Your task to perform on an android device: Go to Amazon Image 0: 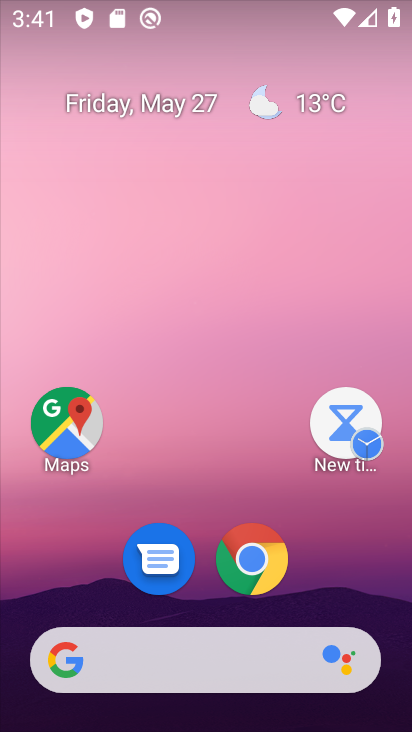
Step 0: drag from (257, 703) to (115, 105)
Your task to perform on an android device: Go to Amazon Image 1: 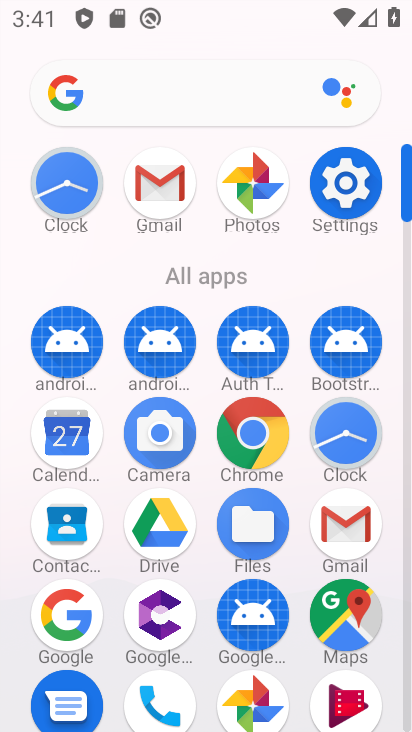
Step 1: click (262, 431)
Your task to perform on an android device: Go to Amazon Image 2: 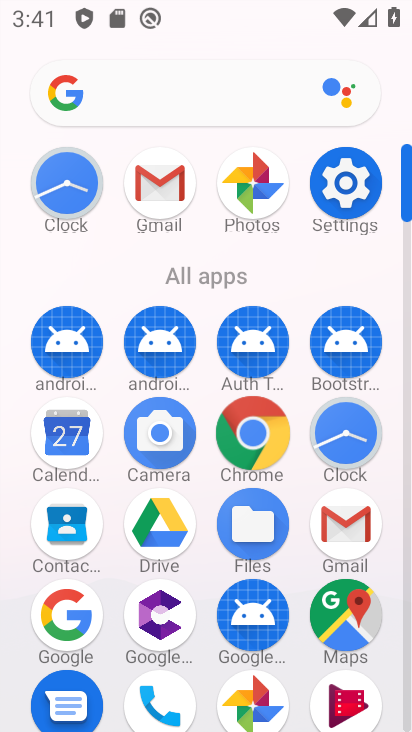
Step 2: click (263, 430)
Your task to perform on an android device: Go to Amazon Image 3: 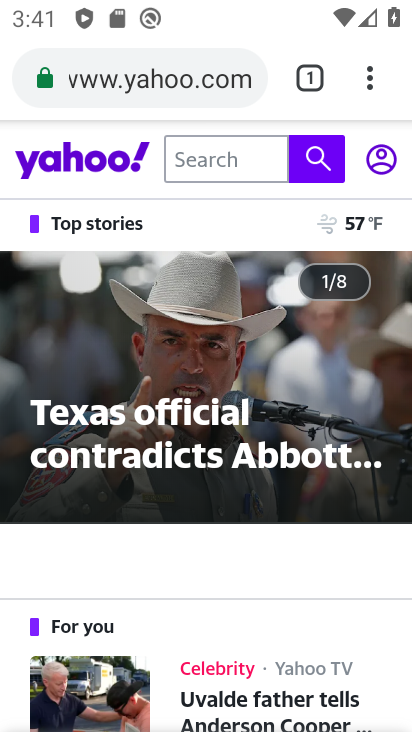
Step 3: click (366, 86)
Your task to perform on an android device: Go to Amazon Image 4: 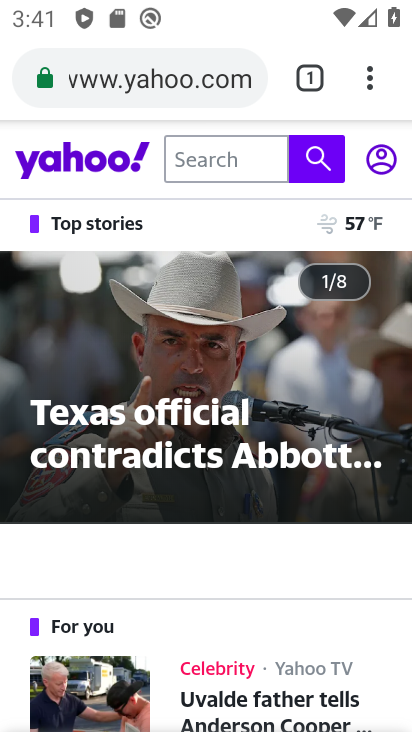
Step 4: click (367, 86)
Your task to perform on an android device: Go to Amazon Image 5: 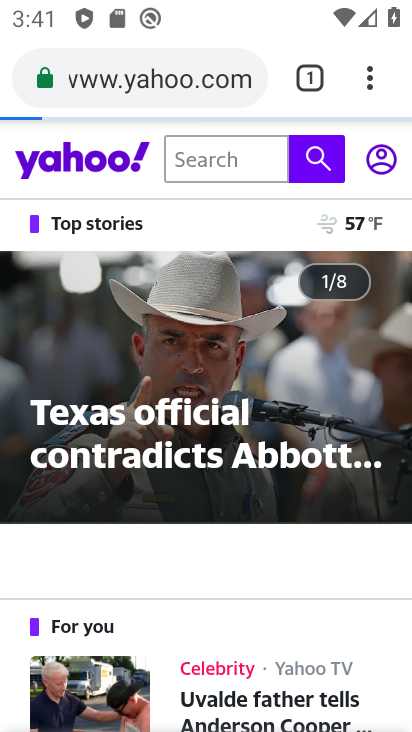
Step 5: click (367, 58)
Your task to perform on an android device: Go to Amazon Image 6: 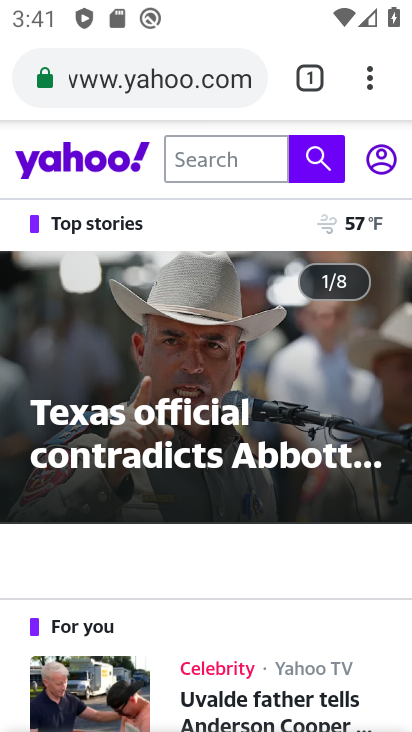
Step 6: click (375, 86)
Your task to perform on an android device: Go to Amazon Image 7: 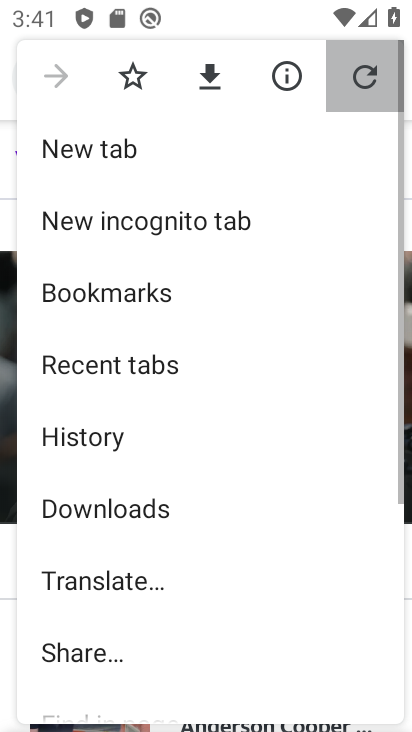
Step 7: click (374, 85)
Your task to perform on an android device: Go to Amazon Image 8: 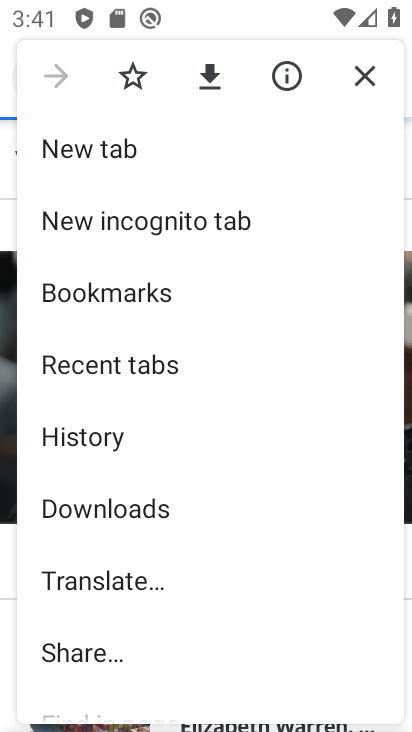
Step 8: drag from (146, 576) to (153, 190)
Your task to perform on an android device: Go to Amazon Image 9: 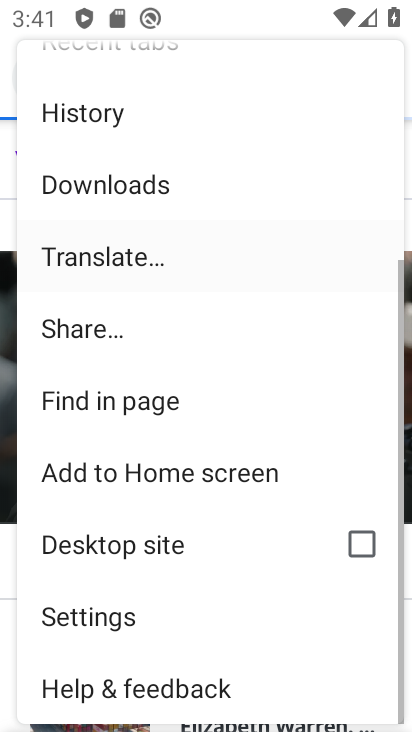
Step 9: drag from (114, 241) to (91, 99)
Your task to perform on an android device: Go to Amazon Image 10: 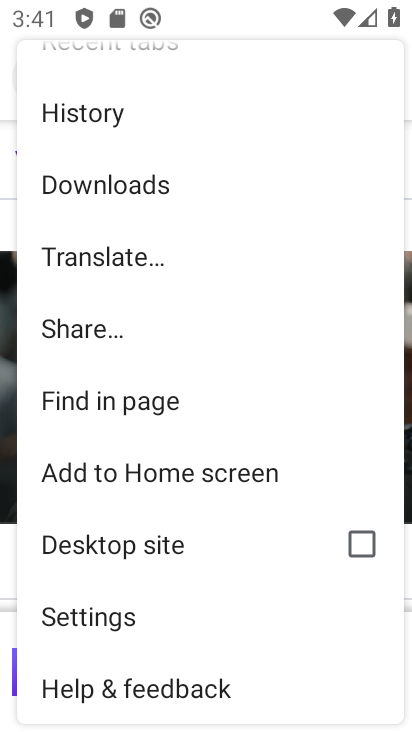
Step 10: drag from (136, 587) to (93, 278)
Your task to perform on an android device: Go to Amazon Image 11: 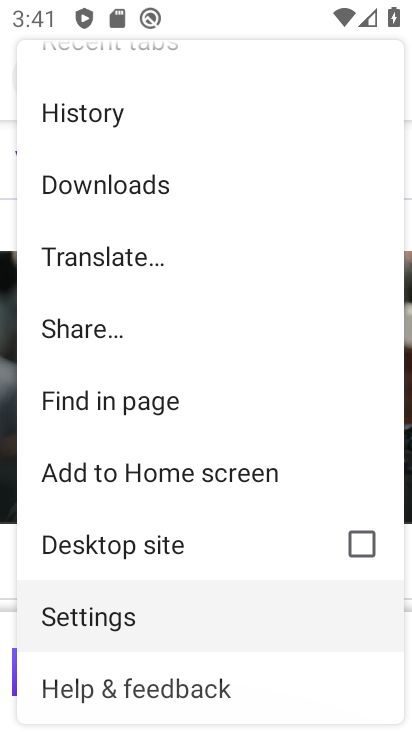
Step 11: drag from (131, 474) to (89, 210)
Your task to perform on an android device: Go to Amazon Image 12: 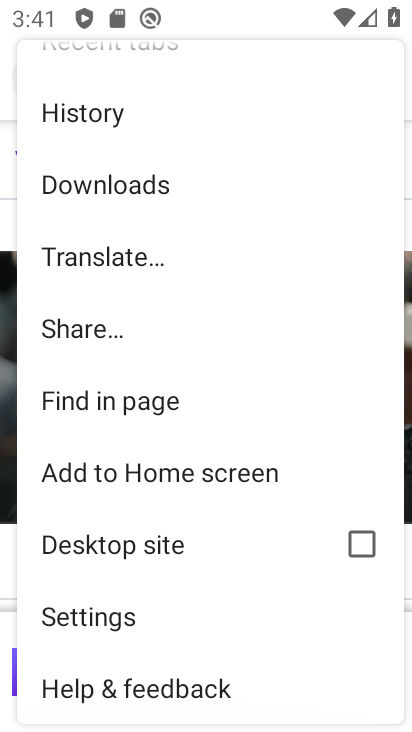
Step 12: drag from (88, 506) to (80, 280)
Your task to perform on an android device: Go to Amazon Image 13: 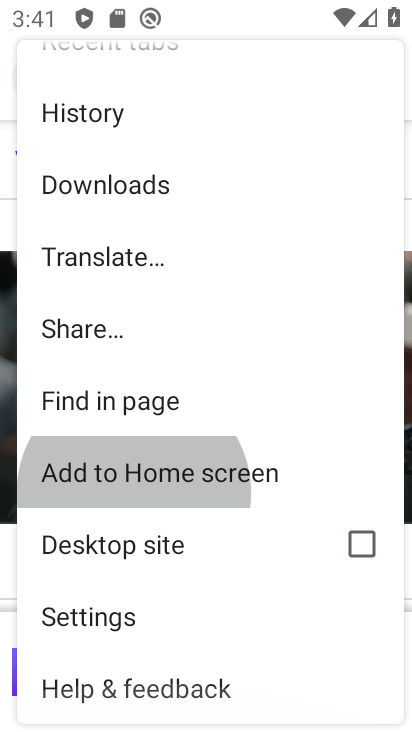
Step 13: drag from (80, 491) to (109, 241)
Your task to perform on an android device: Go to Amazon Image 14: 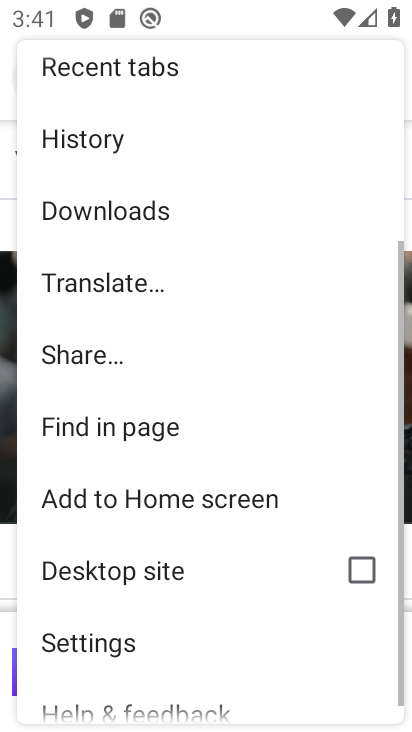
Step 14: drag from (124, 396) to (136, 184)
Your task to perform on an android device: Go to Amazon Image 15: 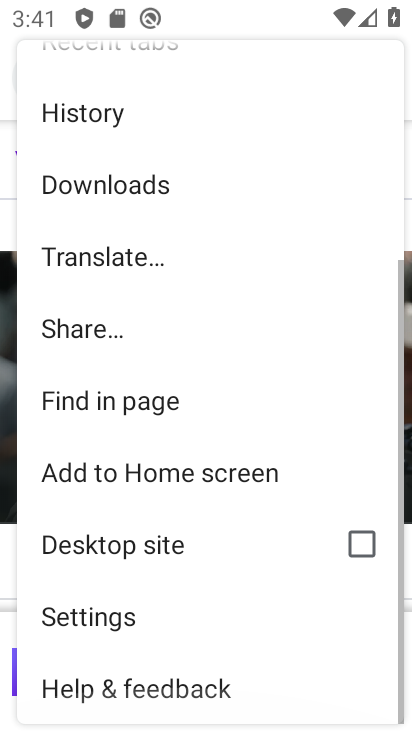
Step 15: drag from (142, 447) to (119, 57)
Your task to perform on an android device: Go to Amazon Image 16: 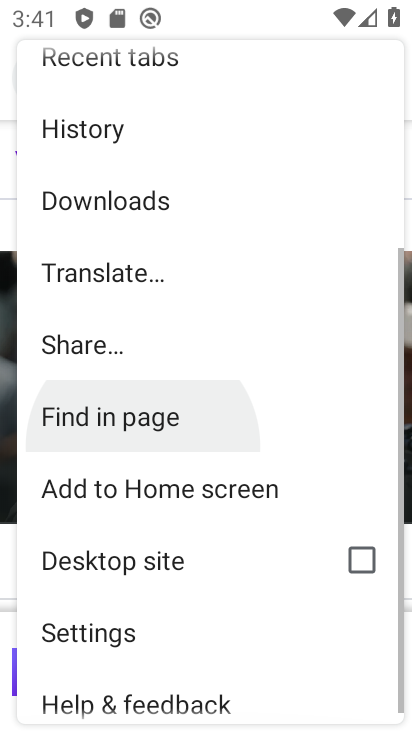
Step 16: drag from (111, 450) to (111, 108)
Your task to perform on an android device: Go to Amazon Image 17: 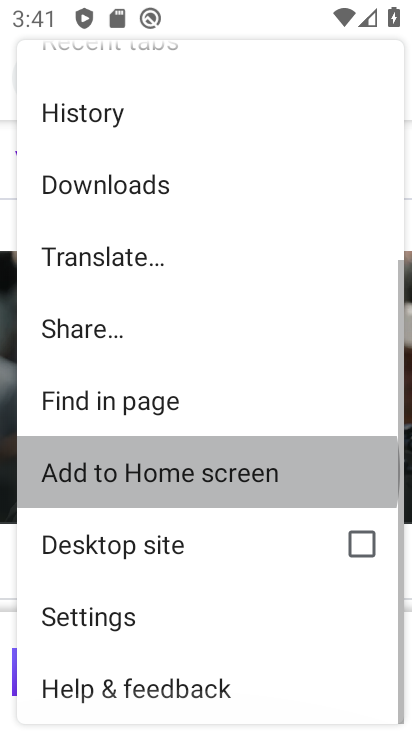
Step 17: drag from (130, 530) to (88, 160)
Your task to perform on an android device: Go to Amazon Image 18: 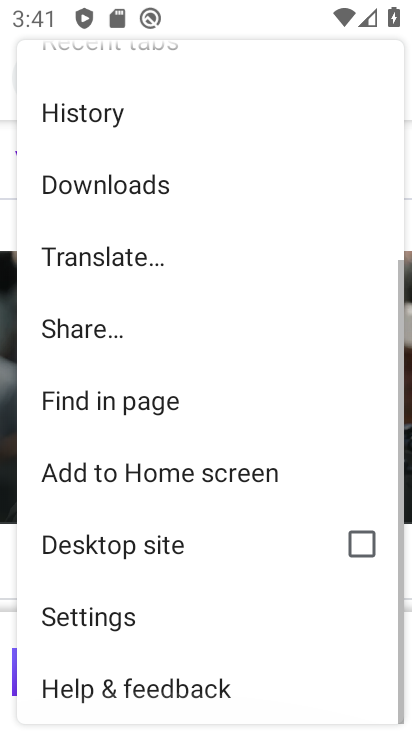
Step 18: drag from (147, 303) to (184, 19)
Your task to perform on an android device: Go to Amazon Image 19: 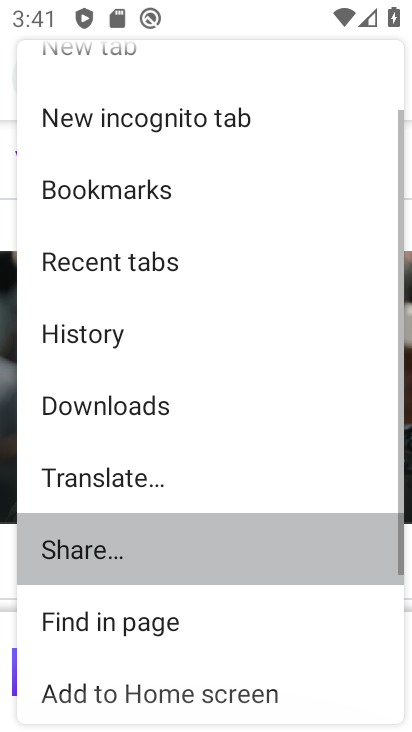
Step 19: drag from (165, 303) to (156, 73)
Your task to perform on an android device: Go to Amazon Image 20: 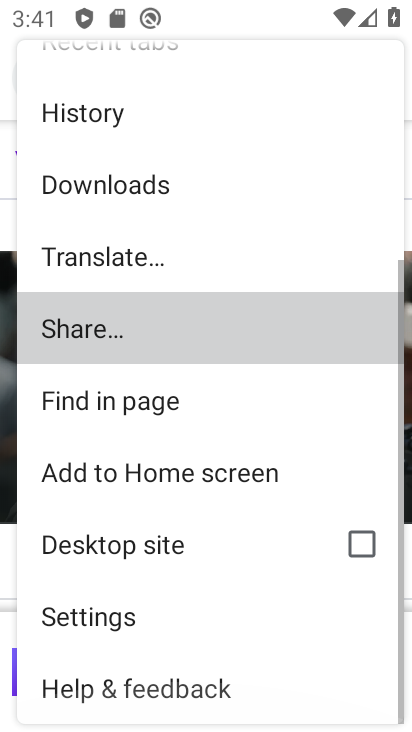
Step 20: drag from (184, 356) to (148, 97)
Your task to perform on an android device: Go to Amazon Image 21: 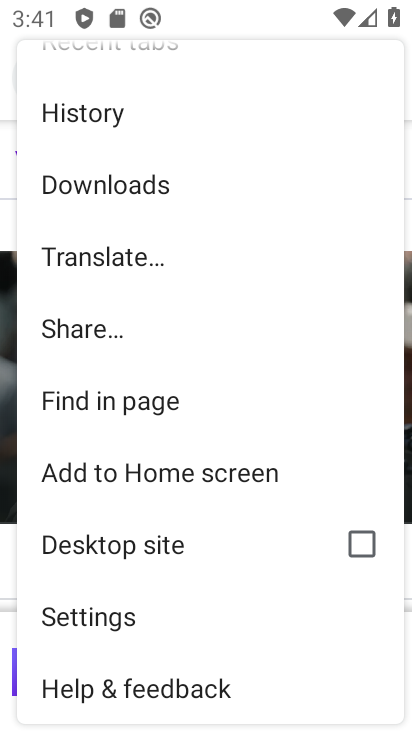
Step 21: click (71, 614)
Your task to perform on an android device: Go to Amazon Image 22: 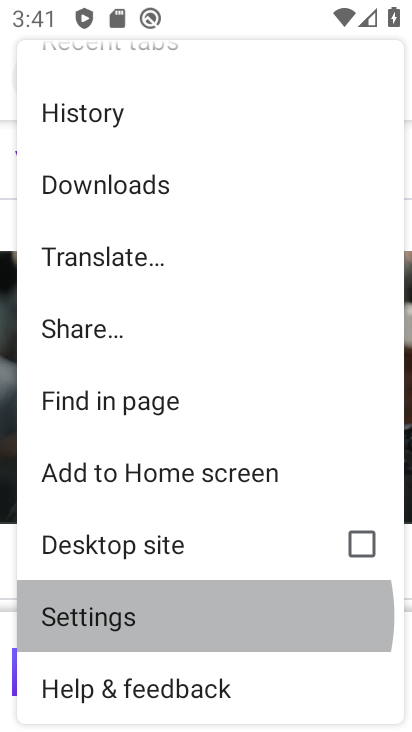
Step 22: click (71, 614)
Your task to perform on an android device: Go to Amazon Image 23: 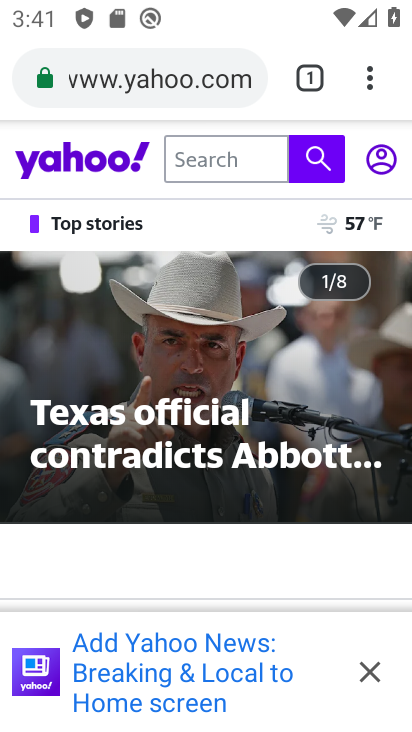
Step 23: click (71, 614)
Your task to perform on an android device: Go to Amazon Image 24: 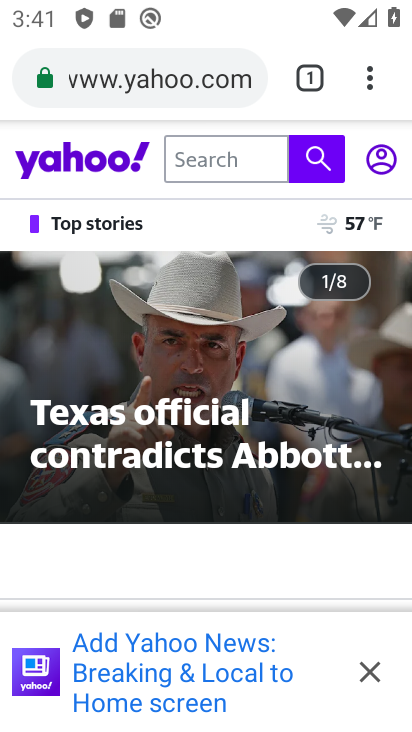
Step 24: click (71, 614)
Your task to perform on an android device: Go to Amazon Image 25: 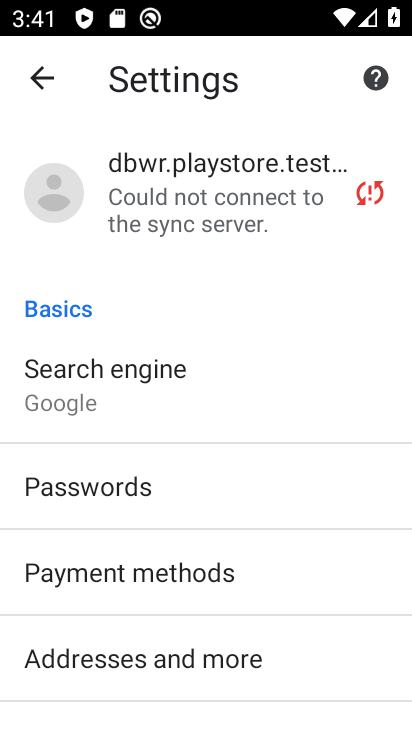
Step 25: click (40, 70)
Your task to perform on an android device: Go to Amazon Image 26: 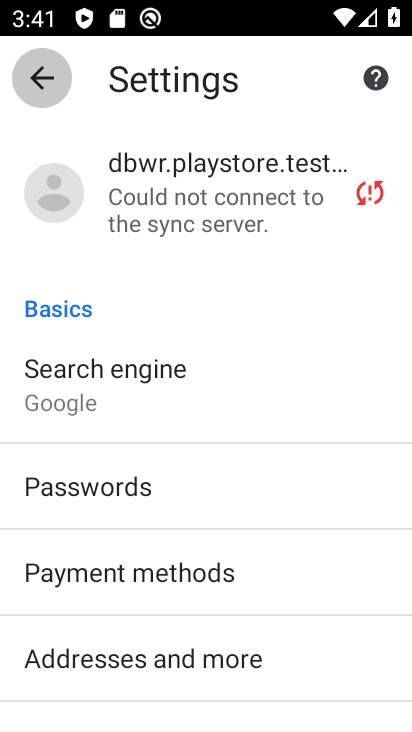
Step 26: click (39, 69)
Your task to perform on an android device: Go to Amazon Image 27: 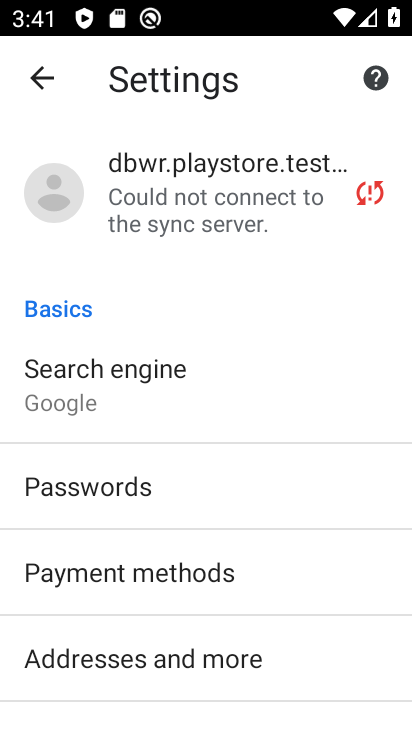
Step 27: click (39, 69)
Your task to perform on an android device: Go to Amazon Image 28: 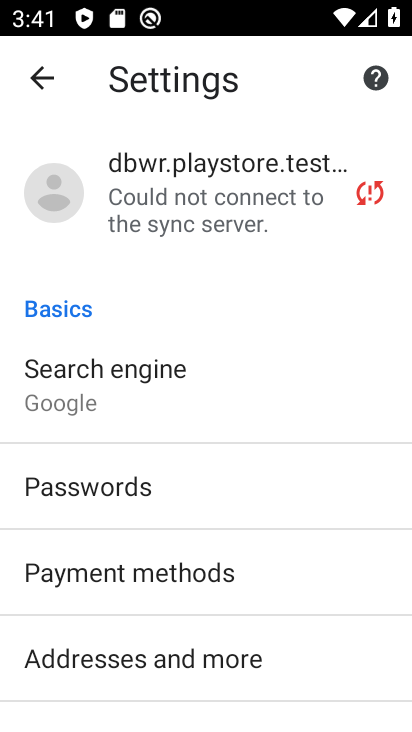
Step 28: click (39, 69)
Your task to perform on an android device: Go to Amazon Image 29: 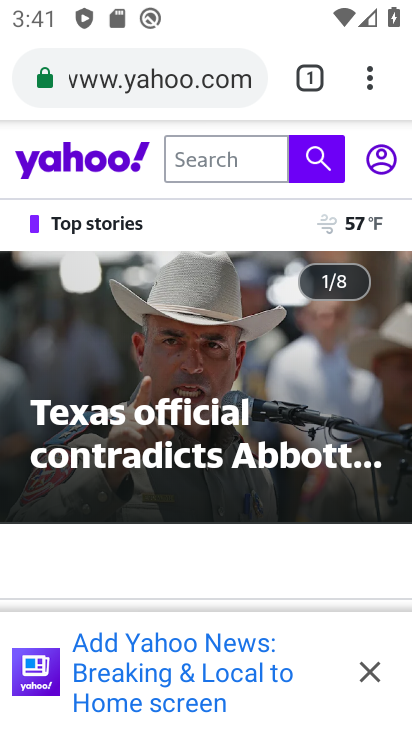
Step 29: click (363, 89)
Your task to perform on an android device: Go to Amazon Image 30: 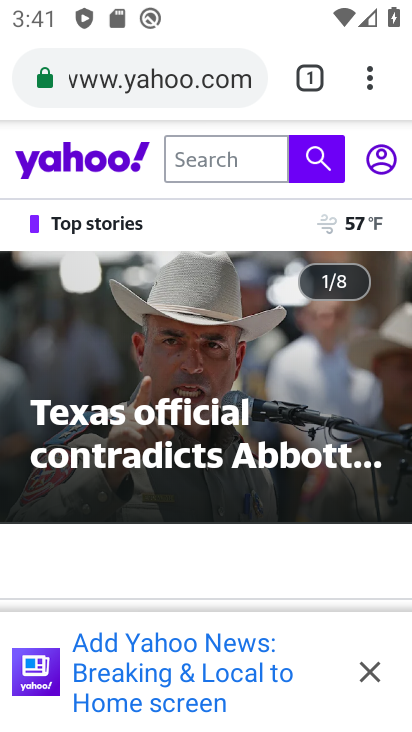
Step 30: click (373, 83)
Your task to perform on an android device: Go to Amazon Image 31: 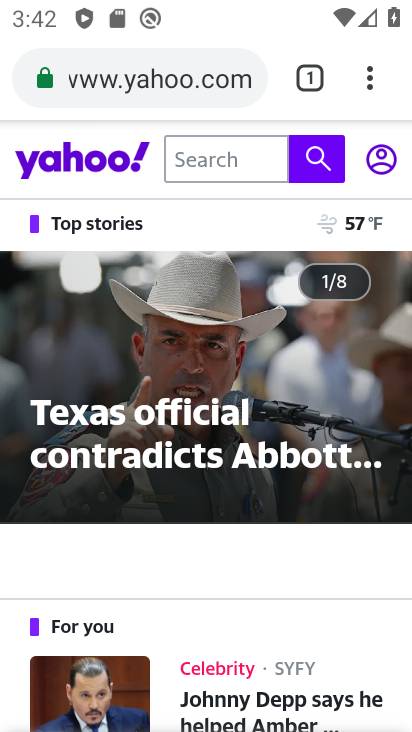
Step 31: click (124, 200)
Your task to perform on an android device: Go to Amazon Image 32: 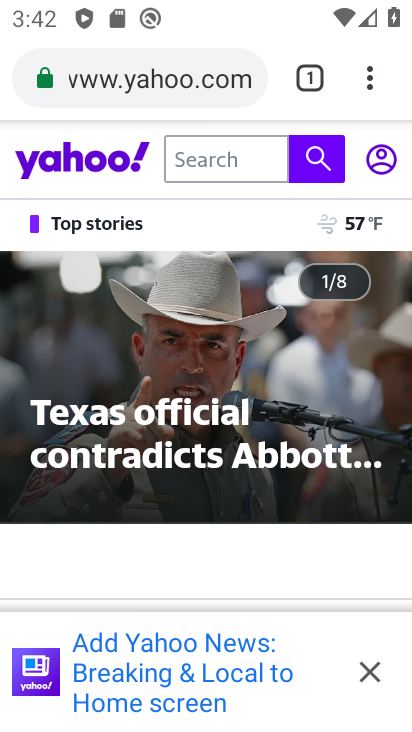
Step 32: drag from (67, 227) to (90, 158)
Your task to perform on an android device: Go to Amazon Image 33: 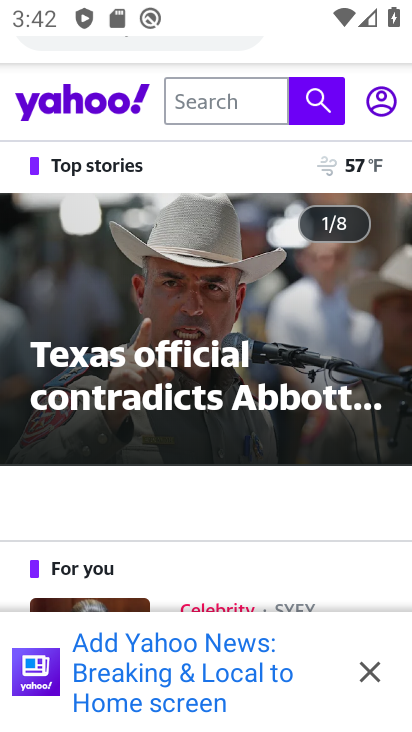
Step 33: drag from (147, 479) to (118, 239)
Your task to perform on an android device: Go to Amazon Image 34: 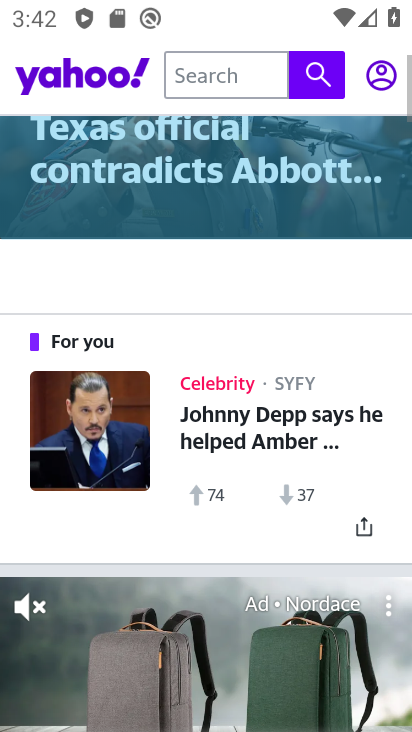
Step 34: drag from (145, 531) to (97, 198)
Your task to perform on an android device: Go to Amazon Image 35: 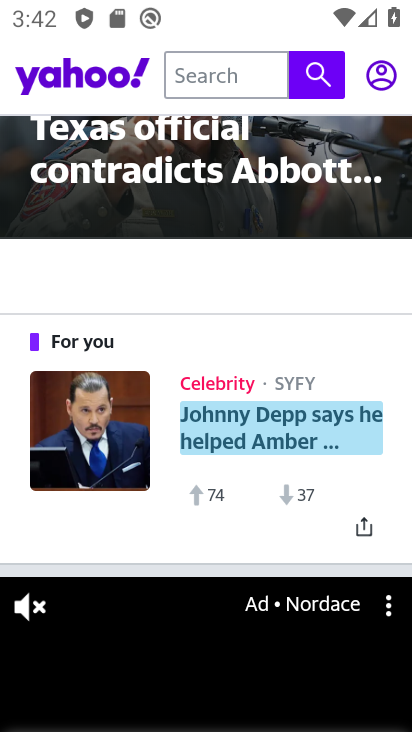
Step 35: drag from (125, 478) to (82, 207)
Your task to perform on an android device: Go to Amazon Image 36: 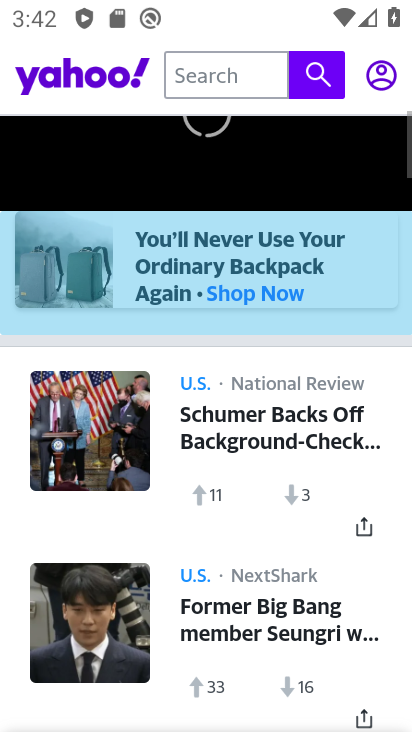
Step 36: click (72, 191)
Your task to perform on an android device: Go to Amazon Image 37: 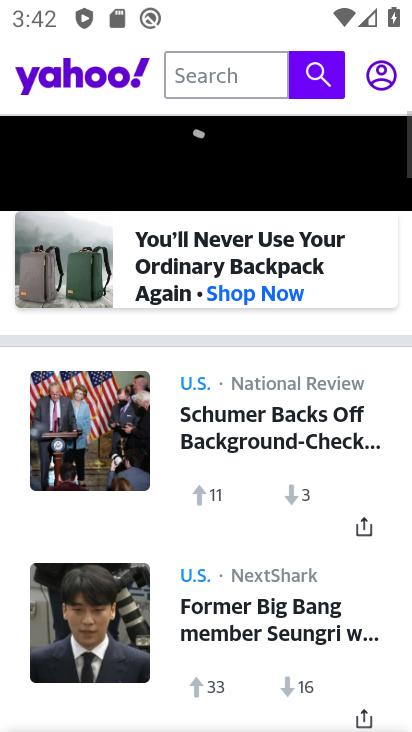
Step 37: drag from (158, 566) to (120, 184)
Your task to perform on an android device: Go to Amazon Image 38: 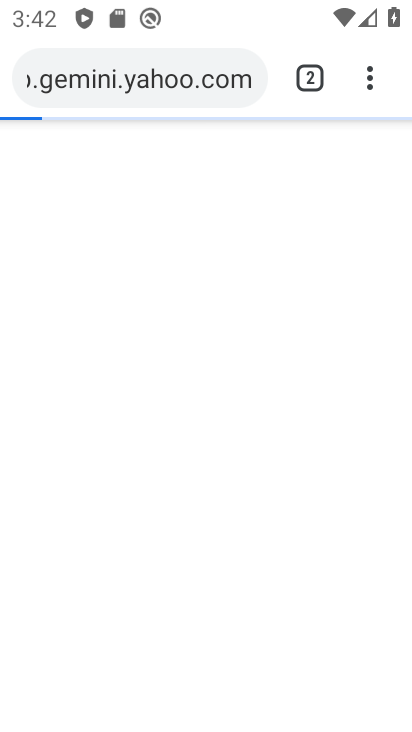
Step 38: click (186, 235)
Your task to perform on an android device: Go to Amazon Image 39: 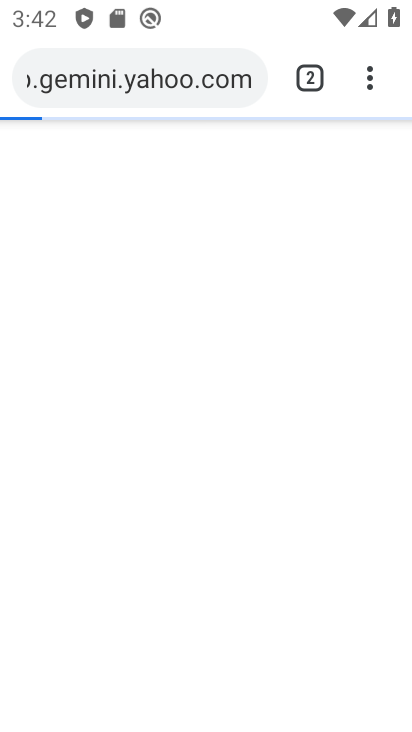
Step 39: drag from (209, 350) to (137, 83)
Your task to perform on an android device: Go to Amazon Image 40: 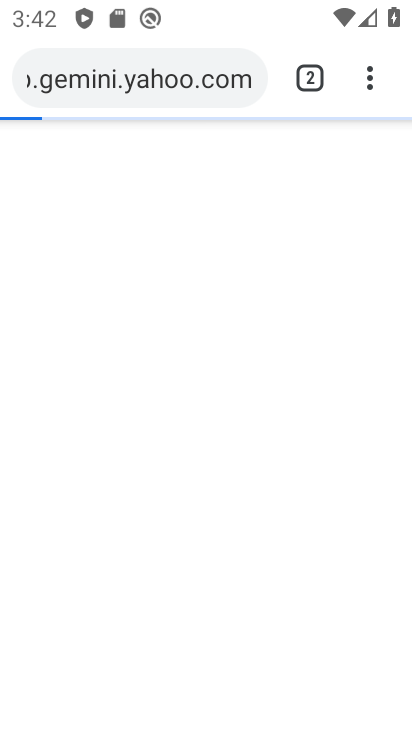
Step 40: click (72, 156)
Your task to perform on an android device: Go to Amazon Image 41: 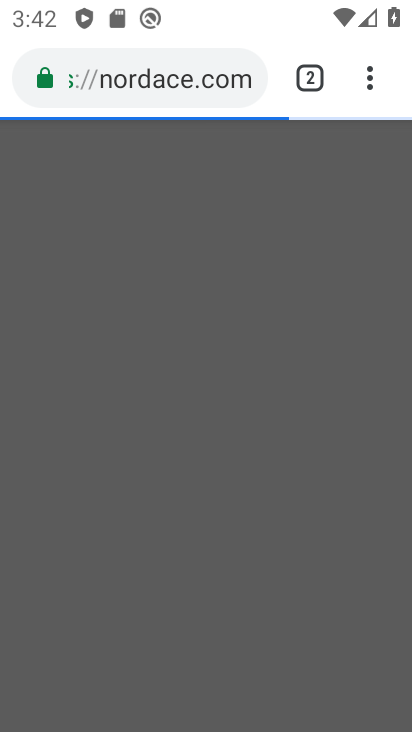
Step 41: click (369, 85)
Your task to perform on an android device: Go to Amazon Image 42: 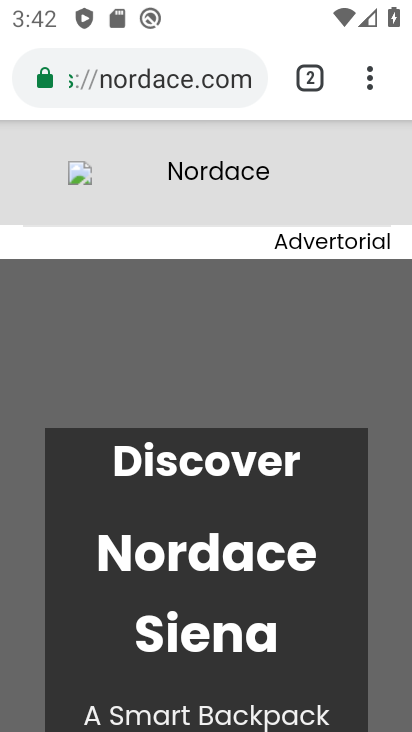
Step 42: drag from (369, 82) to (71, 614)
Your task to perform on an android device: Go to Amazon Image 43: 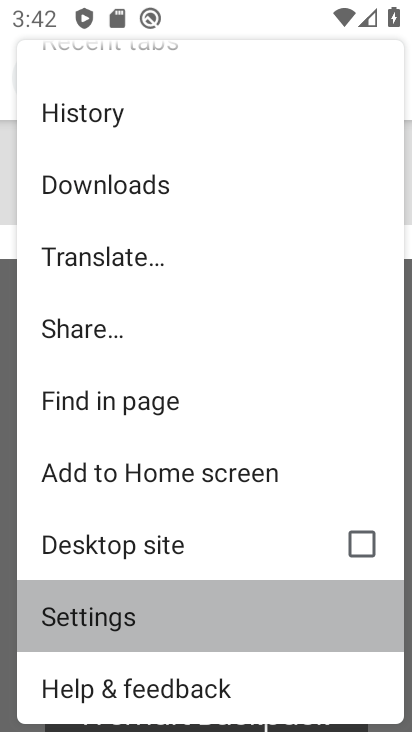
Step 43: click (79, 612)
Your task to perform on an android device: Go to Amazon Image 44: 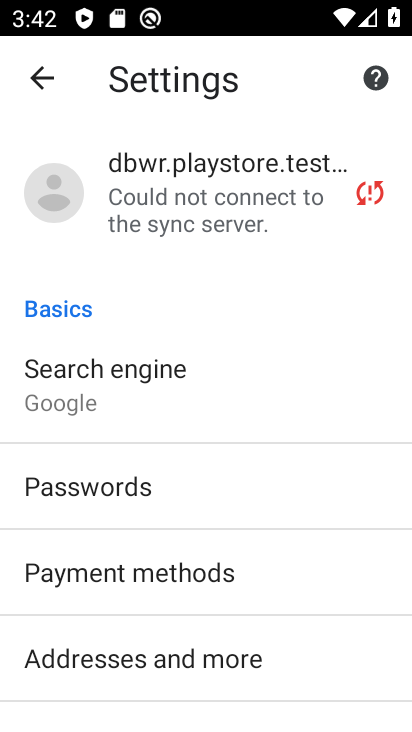
Step 44: click (168, 118)
Your task to perform on an android device: Go to Amazon Image 45: 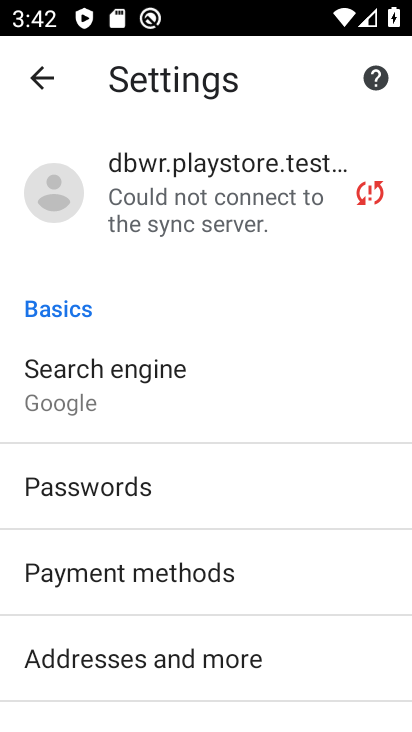
Step 45: drag from (179, 280) to (151, 142)
Your task to perform on an android device: Go to Amazon Image 46: 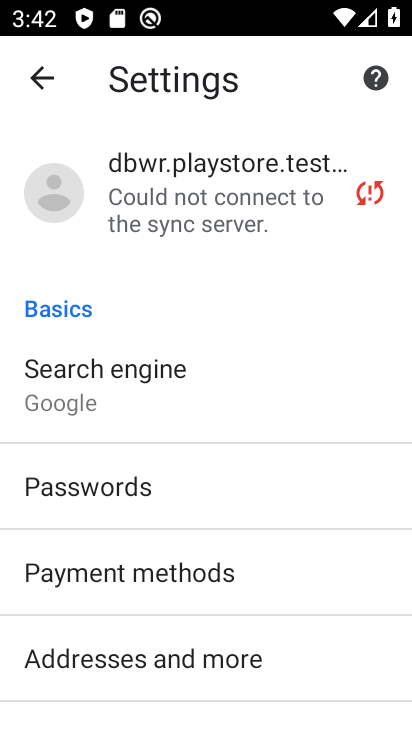
Step 46: drag from (162, 295) to (133, 66)
Your task to perform on an android device: Go to Amazon Image 47: 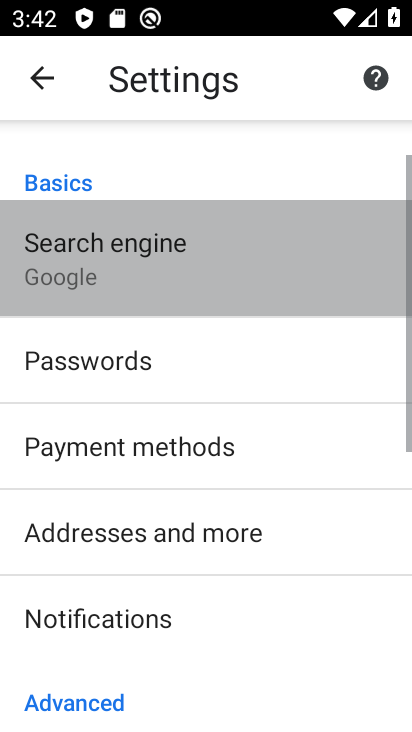
Step 47: drag from (144, 476) to (107, 162)
Your task to perform on an android device: Go to Amazon Image 48: 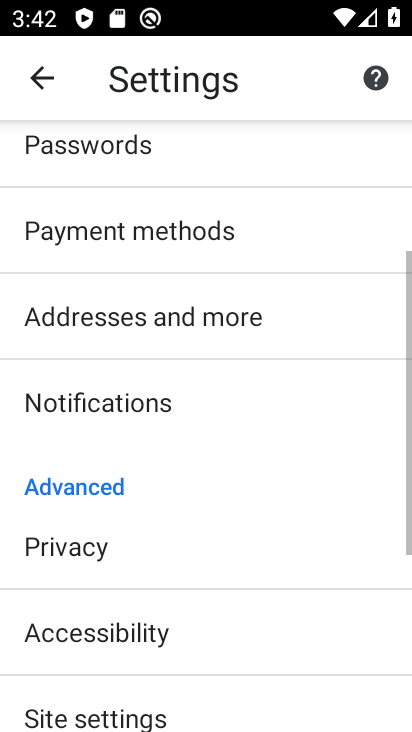
Step 48: drag from (141, 460) to (97, 121)
Your task to perform on an android device: Go to Amazon Image 49: 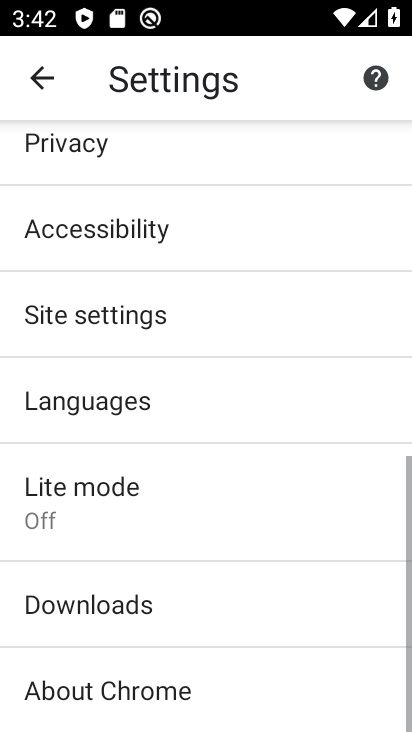
Step 49: drag from (193, 562) to (119, 122)
Your task to perform on an android device: Go to Amazon Image 50: 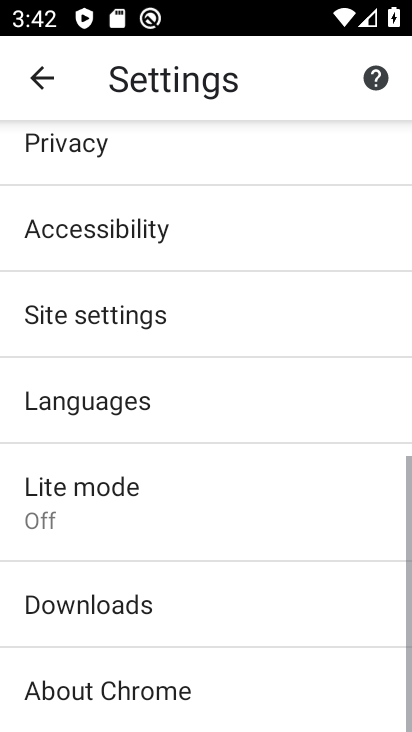
Step 50: drag from (175, 594) to (158, 151)
Your task to perform on an android device: Go to Amazon Image 51: 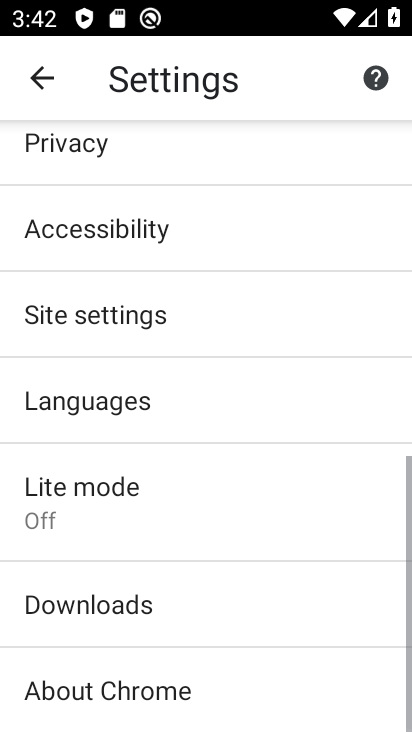
Step 51: click (154, 585)
Your task to perform on an android device: Go to Amazon Image 52: 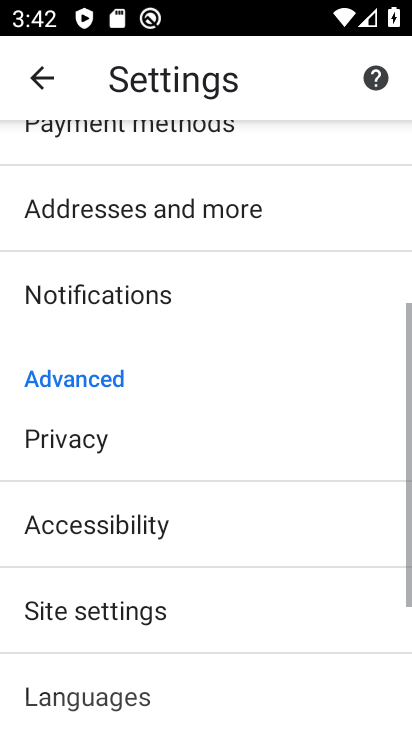
Step 52: drag from (116, 521) to (127, 584)
Your task to perform on an android device: Go to Amazon Image 53: 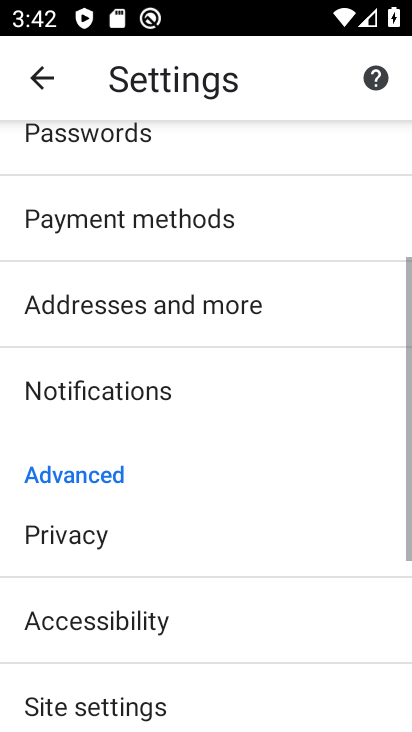
Step 53: click (146, 563)
Your task to perform on an android device: Go to Amazon Image 54: 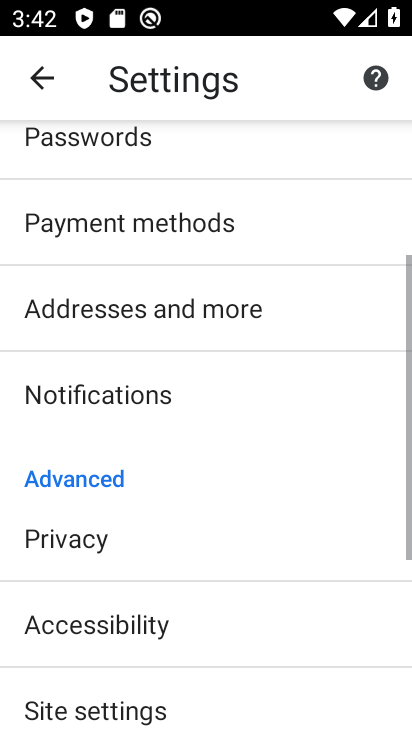
Step 54: drag from (110, 304) to (192, 707)
Your task to perform on an android device: Go to Amazon Image 55: 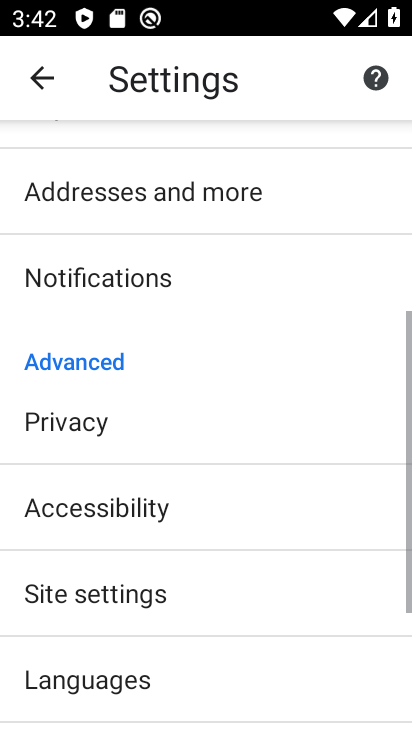
Step 55: drag from (154, 327) to (154, 619)
Your task to perform on an android device: Go to Amazon Image 56: 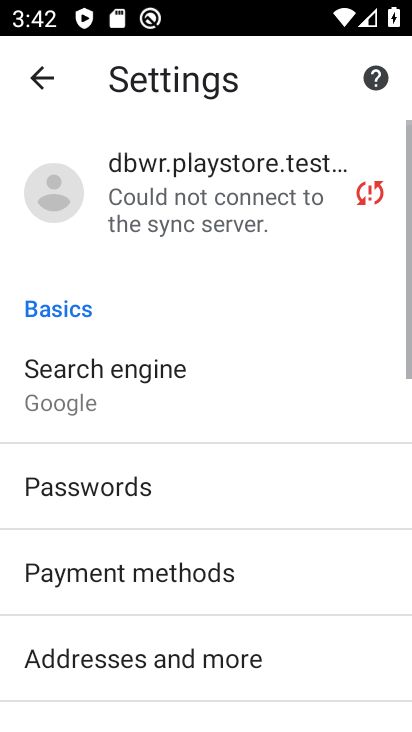
Step 56: drag from (98, 310) to (186, 591)
Your task to perform on an android device: Go to Amazon Image 57: 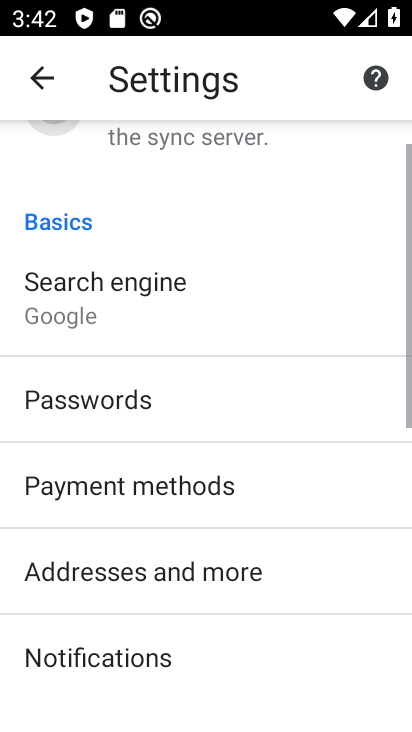
Step 57: drag from (175, 538) to (175, 601)
Your task to perform on an android device: Go to Amazon Image 58: 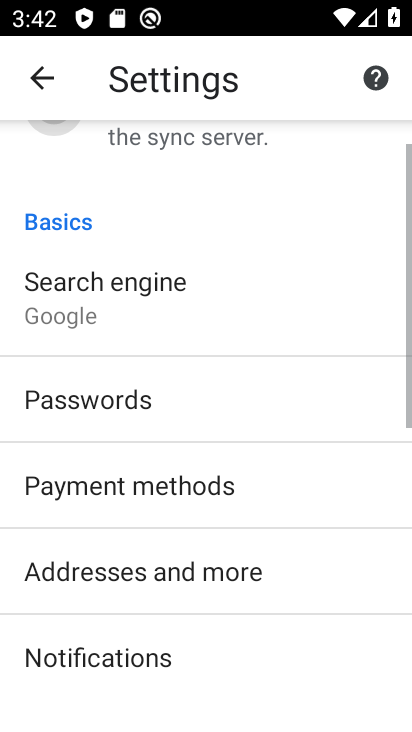
Step 58: drag from (159, 274) to (212, 628)
Your task to perform on an android device: Go to Amazon Image 59: 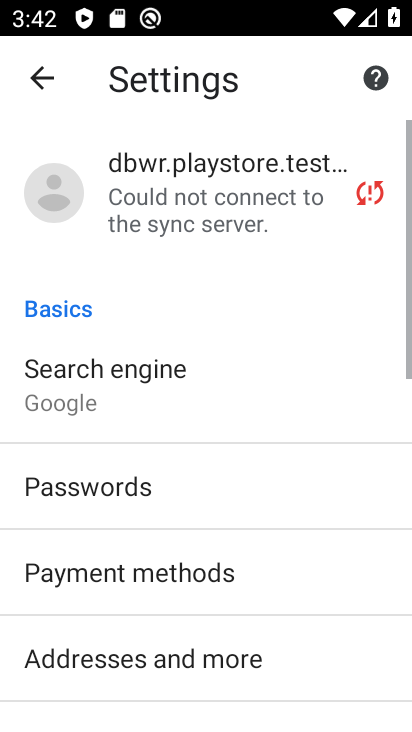
Step 59: click (124, 563)
Your task to perform on an android device: Go to Amazon Image 60: 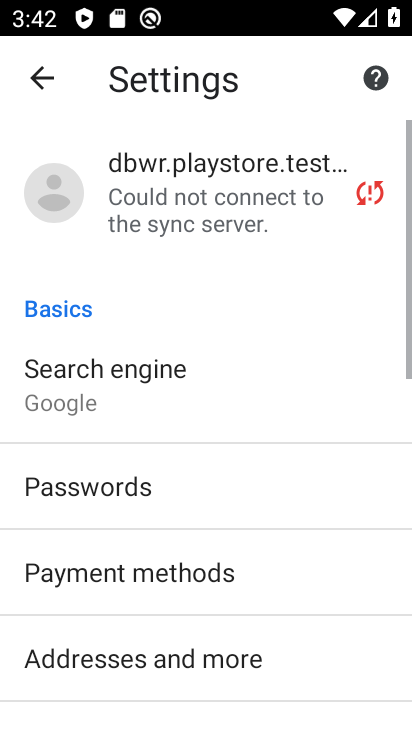
Step 60: click (121, 573)
Your task to perform on an android device: Go to Amazon Image 61: 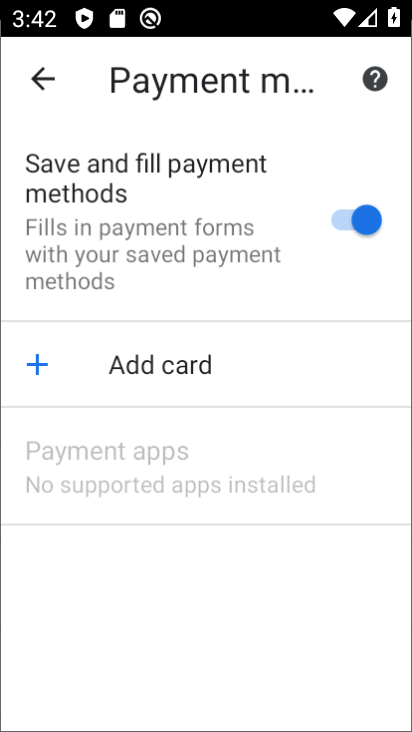
Step 61: click (134, 646)
Your task to perform on an android device: Go to Amazon Image 62: 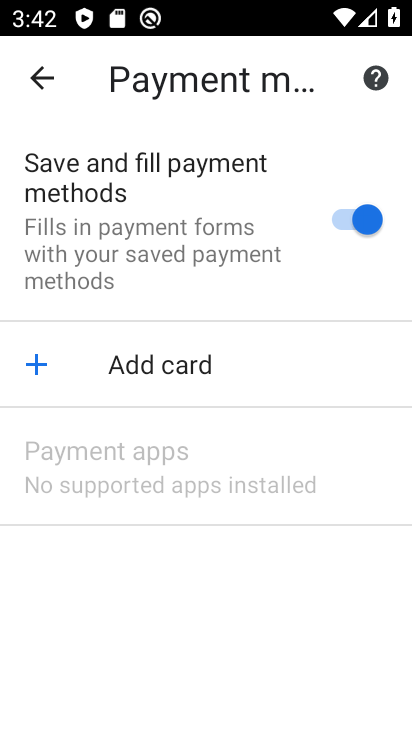
Step 62: drag from (148, 672) to (139, 511)
Your task to perform on an android device: Go to Amazon Image 63: 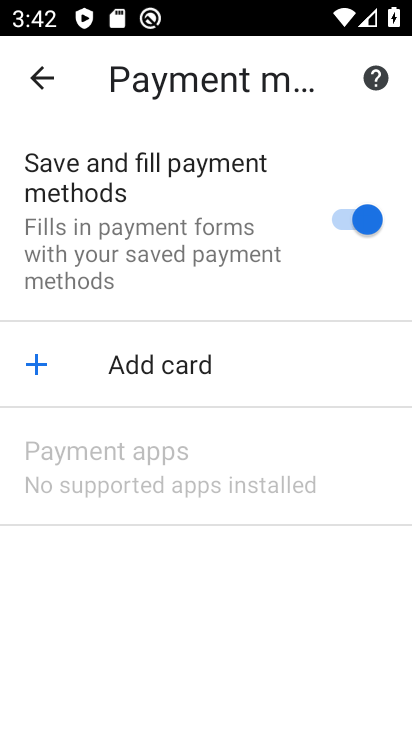
Step 63: click (37, 82)
Your task to perform on an android device: Go to Amazon Image 64: 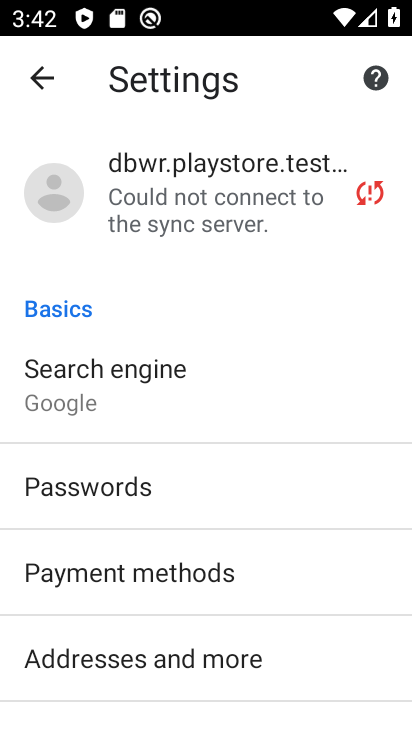
Step 64: click (48, 84)
Your task to perform on an android device: Go to Amazon Image 65: 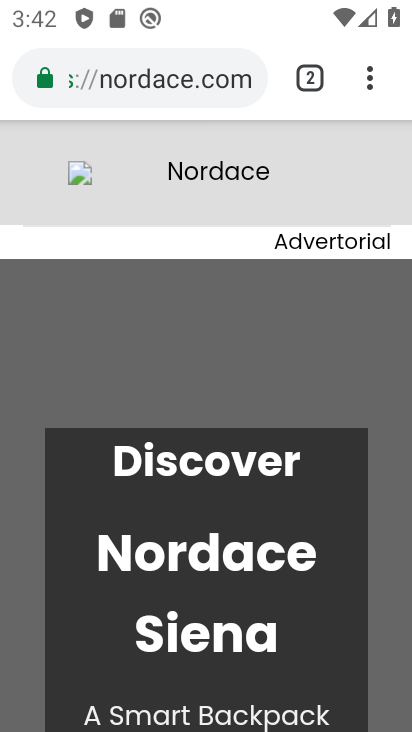
Step 65: press back button
Your task to perform on an android device: Go to Amazon Image 66: 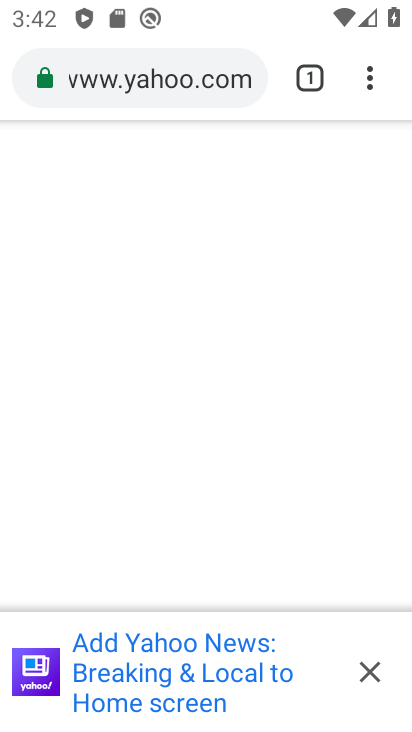
Step 66: press back button
Your task to perform on an android device: Go to Amazon Image 67: 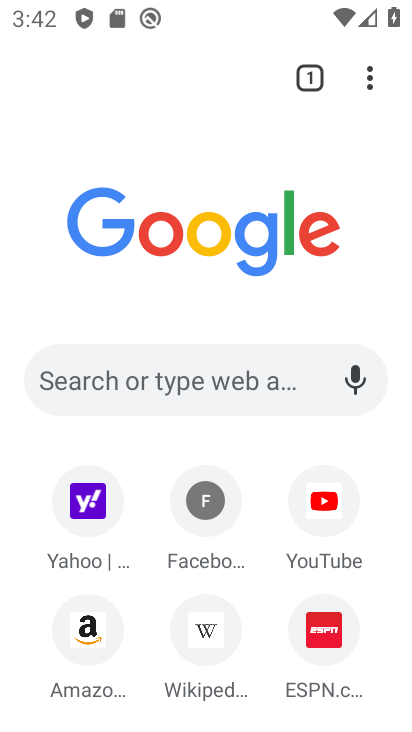
Step 67: press home button
Your task to perform on an android device: Go to Amazon Image 68: 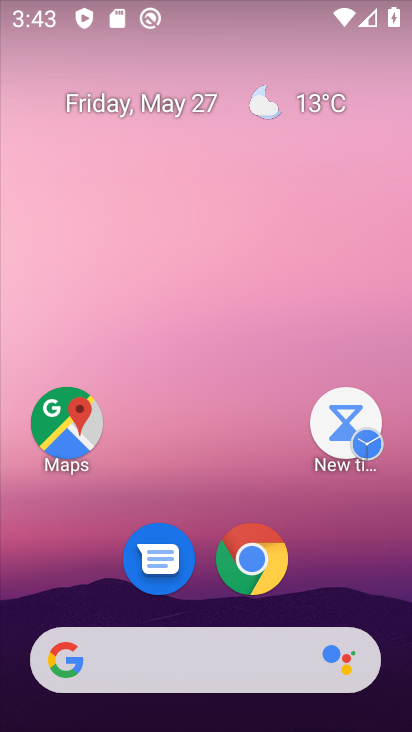
Step 68: drag from (339, 546) to (258, 278)
Your task to perform on an android device: Go to Amazon Image 69: 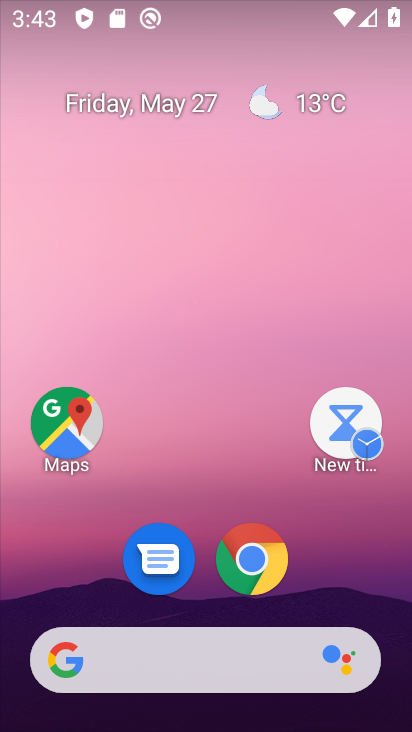
Step 69: drag from (307, 653) to (194, 8)
Your task to perform on an android device: Go to Amazon Image 70: 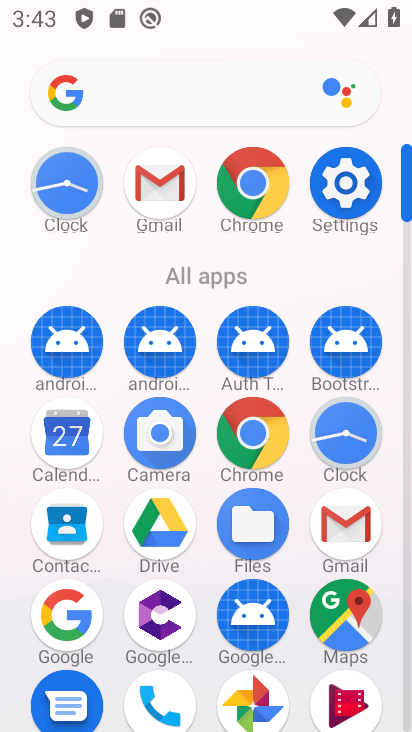
Step 70: drag from (255, 511) to (132, 98)
Your task to perform on an android device: Go to Amazon Image 71: 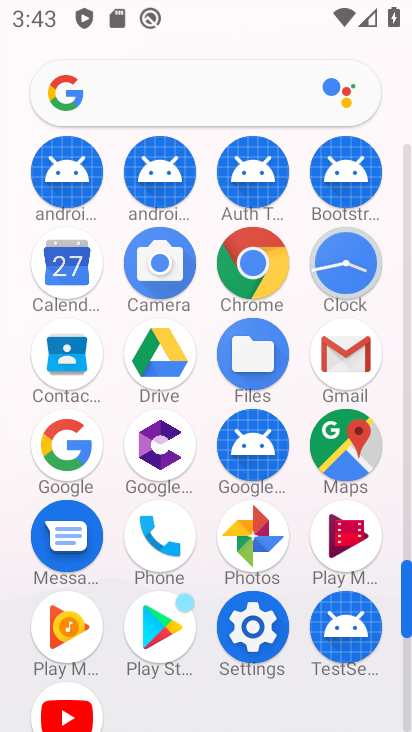
Step 71: click (300, 535)
Your task to perform on an android device: Go to Amazon Image 72: 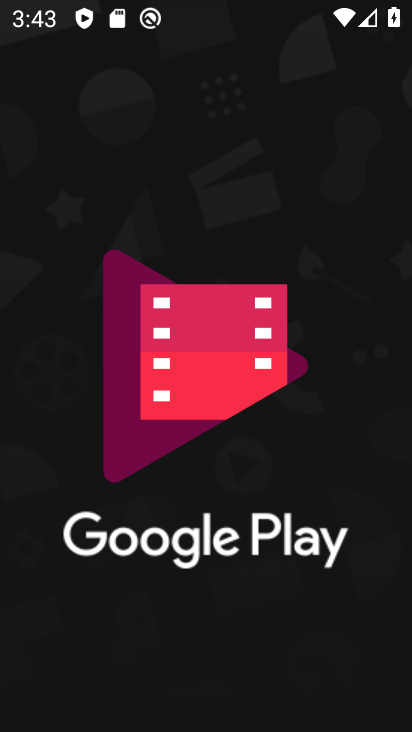
Step 72: press back button
Your task to perform on an android device: Go to Amazon Image 73: 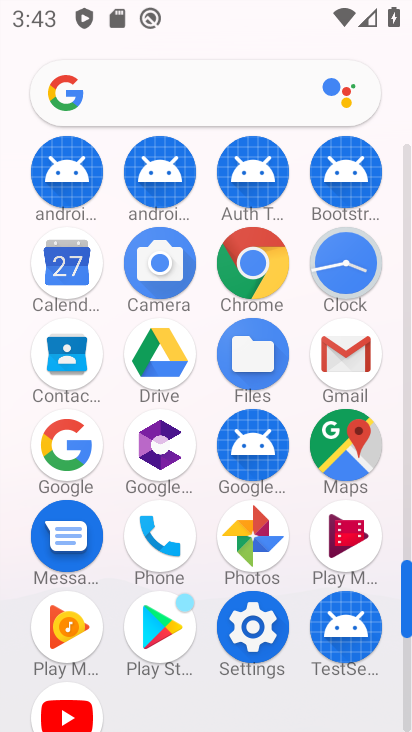
Step 73: click (251, 281)
Your task to perform on an android device: Go to Amazon Image 74: 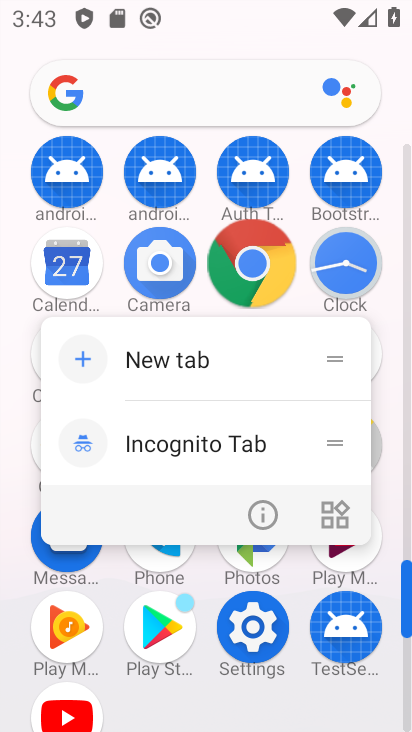
Step 74: click (249, 282)
Your task to perform on an android device: Go to Amazon Image 75: 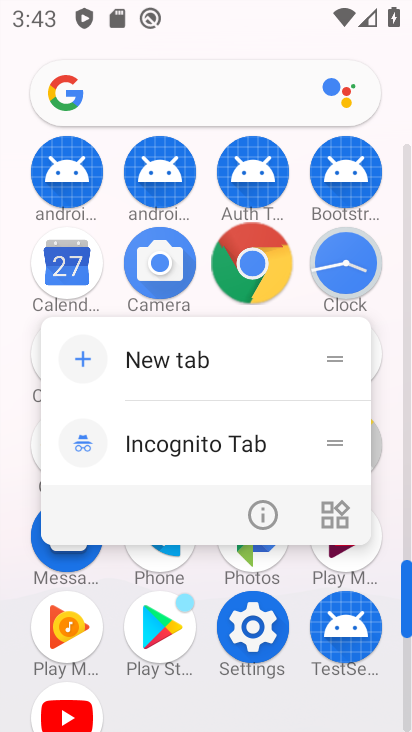
Step 75: click (249, 283)
Your task to perform on an android device: Go to Amazon Image 76: 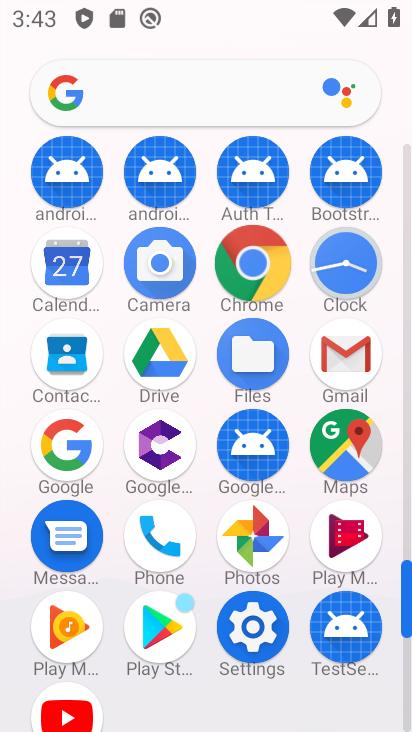
Step 76: click (246, 290)
Your task to perform on an android device: Go to Amazon Image 77: 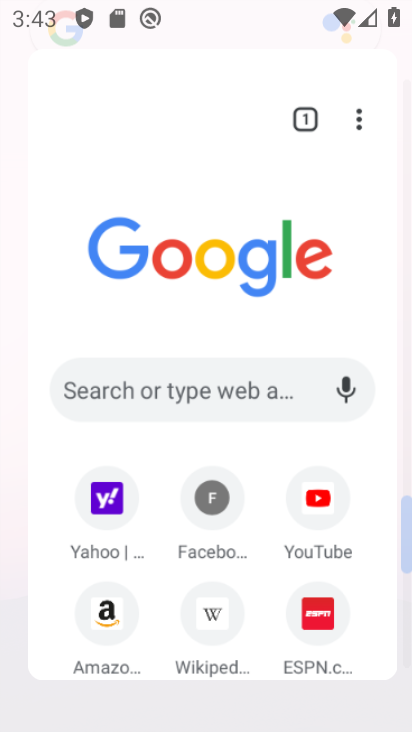
Step 77: click (246, 301)
Your task to perform on an android device: Go to Amazon Image 78: 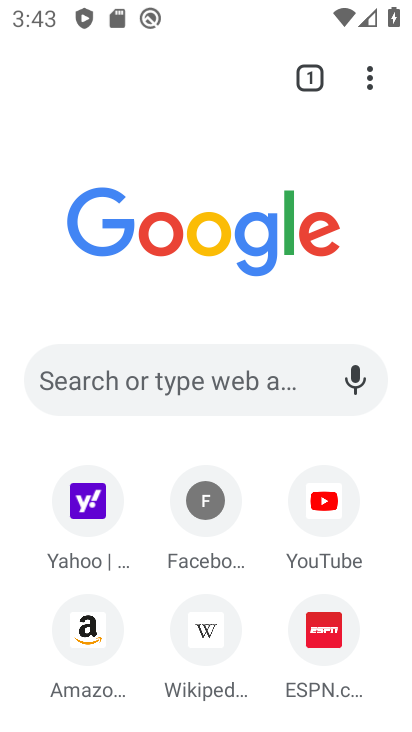
Step 78: click (81, 630)
Your task to perform on an android device: Go to Amazon Image 79: 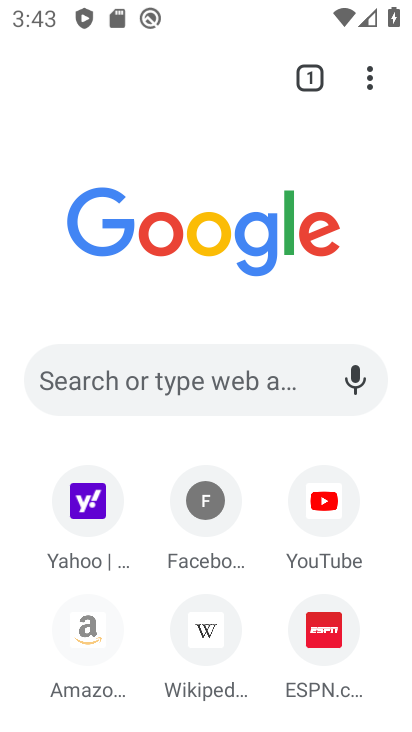
Step 79: click (81, 630)
Your task to perform on an android device: Go to Amazon Image 80: 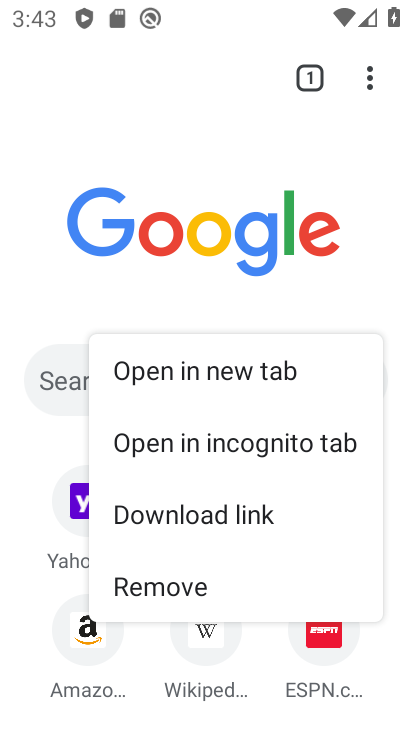
Step 80: click (84, 631)
Your task to perform on an android device: Go to Amazon Image 81: 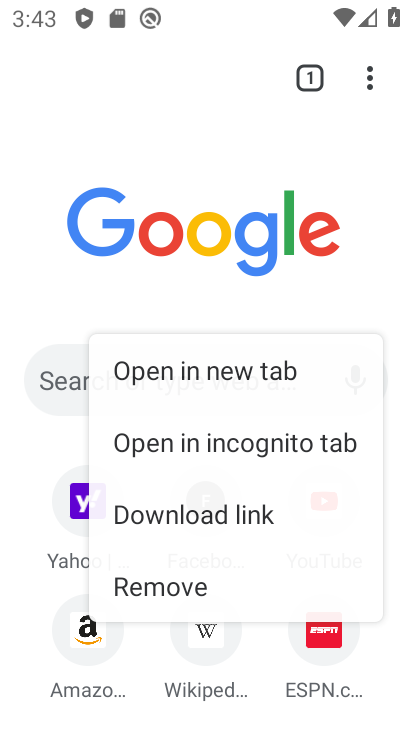
Step 81: click (84, 632)
Your task to perform on an android device: Go to Amazon Image 82: 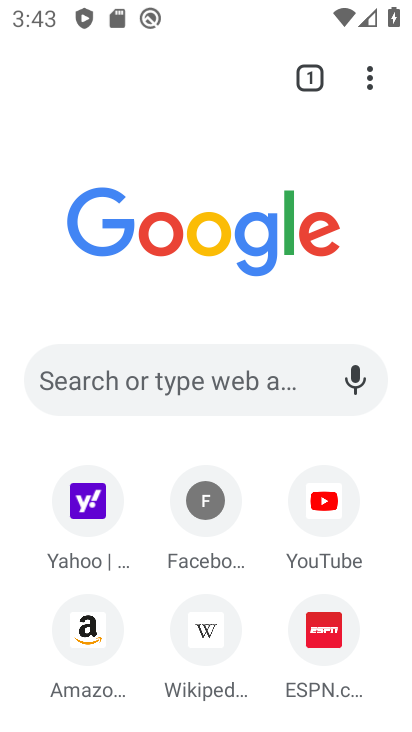
Step 82: click (84, 640)
Your task to perform on an android device: Go to Amazon Image 83: 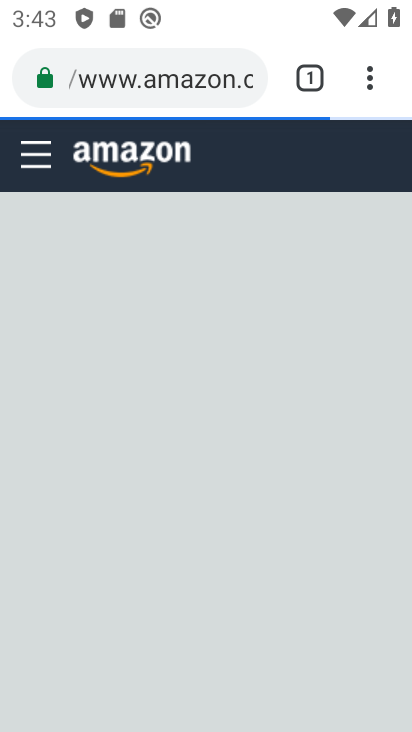
Step 83: click (81, 643)
Your task to perform on an android device: Go to Amazon Image 84: 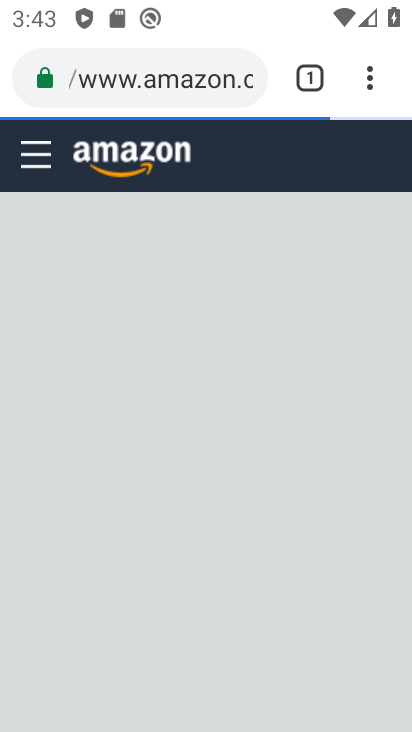
Step 84: click (81, 643)
Your task to perform on an android device: Go to Amazon Image 85: 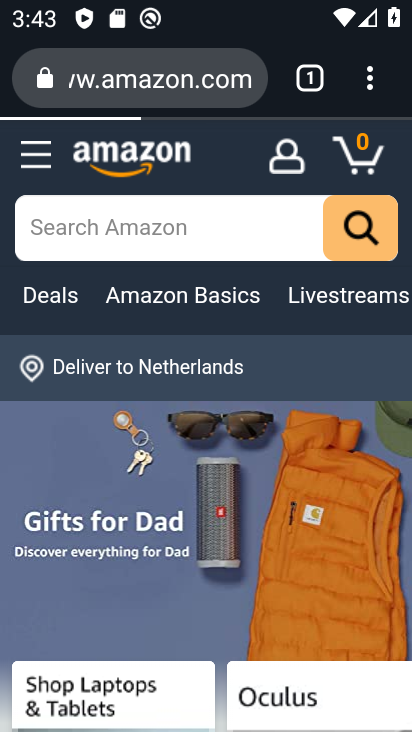
Step 85: task complete